Your task to perform on an android device: View the shopping cart on walmart.com. Add "usb-c to usb-a" to the cart on walmart.com, then select checkout. Image 0: 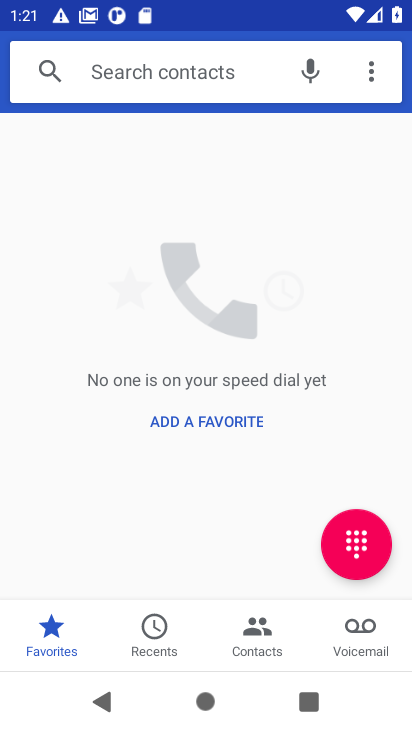
Step 0: press home button
Your task to perform on an android device: View the shopping cart on walmart.com. Add "usb-c to usb-a" to the cart on walmart.com, then select checkout. Image 1: 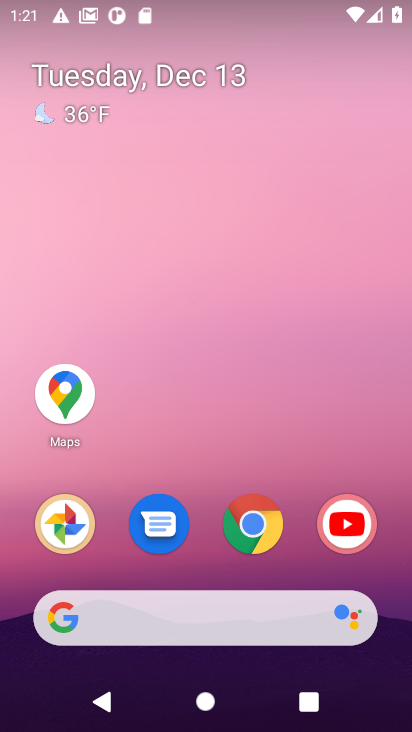
Step 1: click (257, 527)
Your task to perform on an android device: View the shopping cart on walmart.com. Add "usb-c to usb-a" to the cart on walmart.com, then select checkout. Image 2: 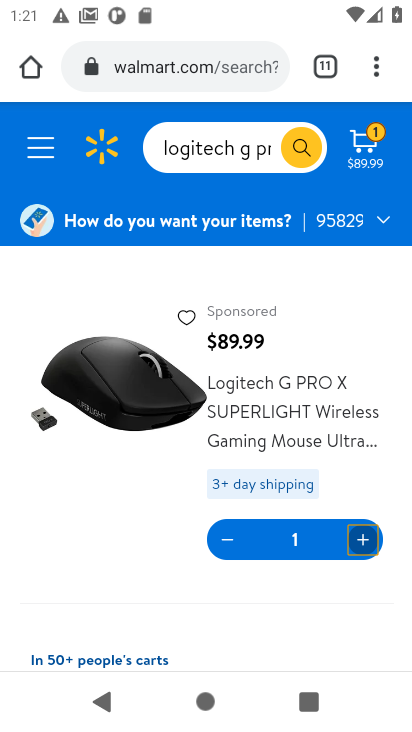
Step 2: click (365, 152)
Your task to perform on an android device: View the shopping cart on walmart.com. Add "usb-c to usb-a" to the cart on walmart.com, then select checkout. Image 3: 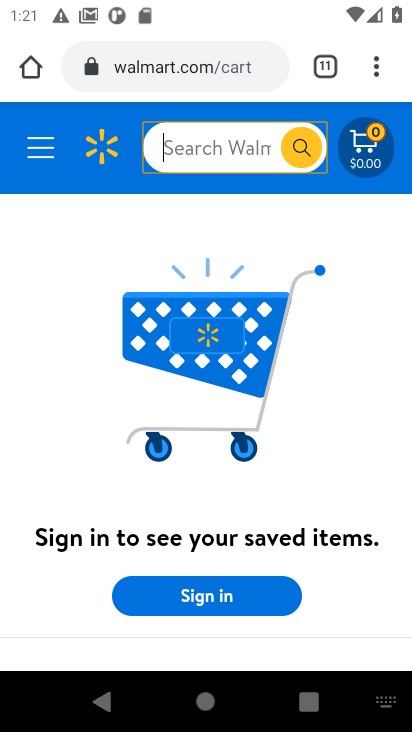
Step 3: click (185, 148)
Your task to perform on an android device: View the shopping cart on walmart.com. Add "usb-c to usb-a" to the cart on walmart.com, then select checkout. Image 4: 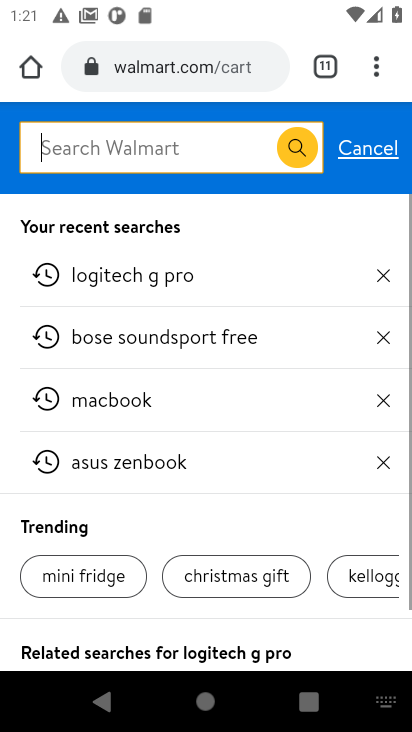
Step 4: type "usb-c to usb-a"
Your task to perform on an android device: View the shopping cart on walmart.com. Add "usb-c to usb-a" to the cart on walmart.com, then select checkout. Image 5: 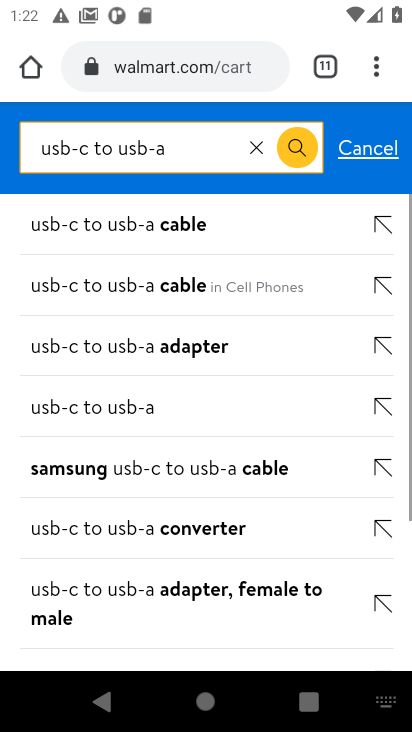
Step 5: click (120, 230)
Your task to perform on an android device: View the shopping cart on walmart.com. Add "usb-c to usb-a" to the cart on walmart.com, then select checkout. Image 6: 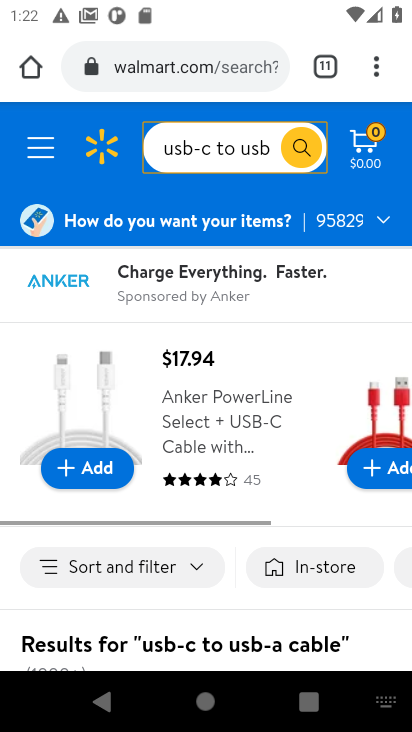
Step 6: drag from (164, 435) to (135, 114)
Your task to perform on an android device: View the shopping cart on walmart.com. Add "usb-c to usb-a" to the cart on walmart.com, then select checkout. Image 7: 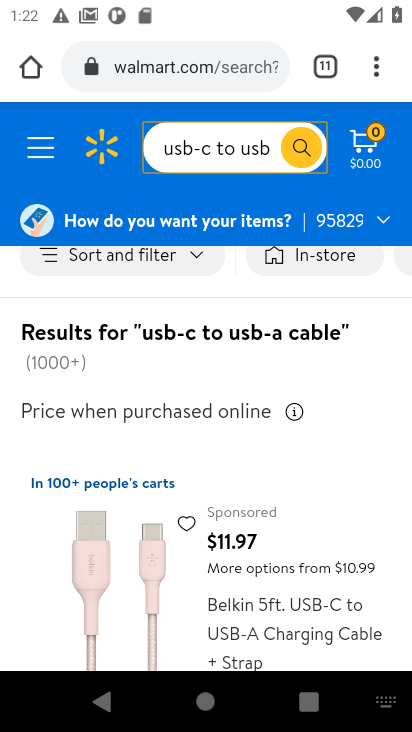
Step 7: drag from (236, 446) to (218, 271)
Your task to perform on an android device: View the shopping cart on walmart.com. Add "usb-c to usb-a" to the cart on walmart.com, then select checkout. Image 8: 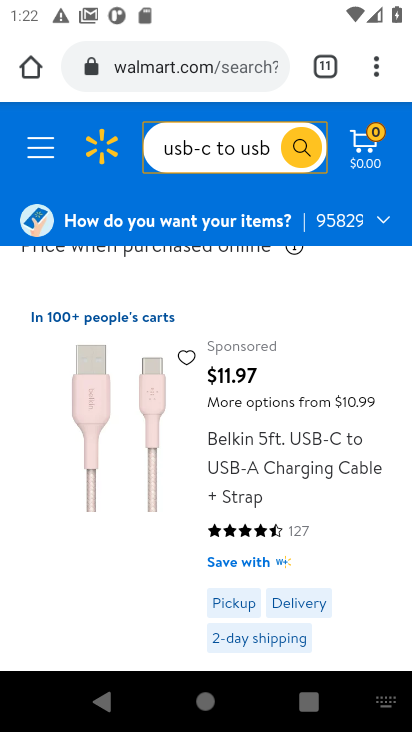
Step 8: drag from (218, 435) to (208, 235)
Your task to perform on an android device: View the shopping cart on walmart.com. Add "usb-c to usb-a" to the cart on walmart.com, then select checkout. Image 9: 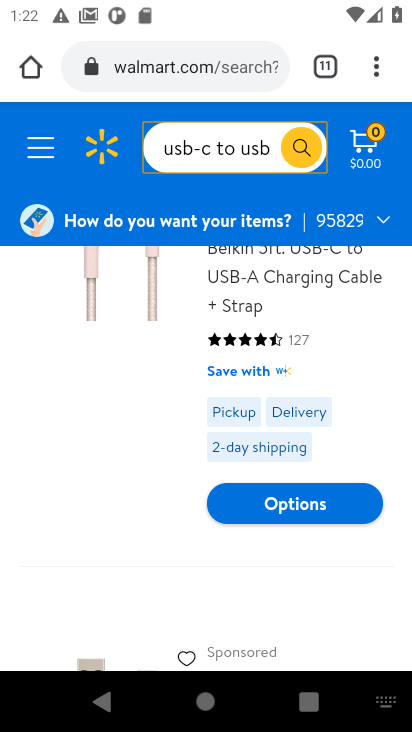
Step 9: click (267, 277)
Your task to perform on an android device: View the shopping cart on walmart.com. Add "usb-c to usb-a" to the cart on walmart.com, then select checkout. Image 10: 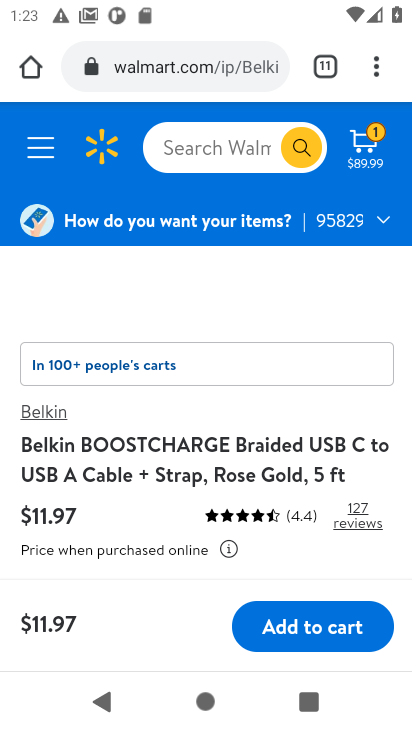
Step 10: click (331, 623)
Your task to perform on an android device: View the shopping cart on walmart.com. Add "usb-c to usb-a" to the cart on walmart.com, then select checkout. Image 11: 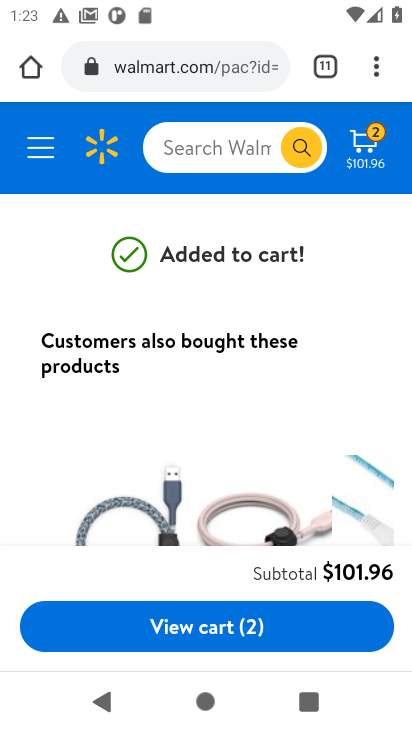
Step 11: click (195, 631)
Your task to perform on an android device: View the shopping cart on walmart.com. Add "usb-c to usb-a" to the cart on walmart.com, then select checkout. Image 12: 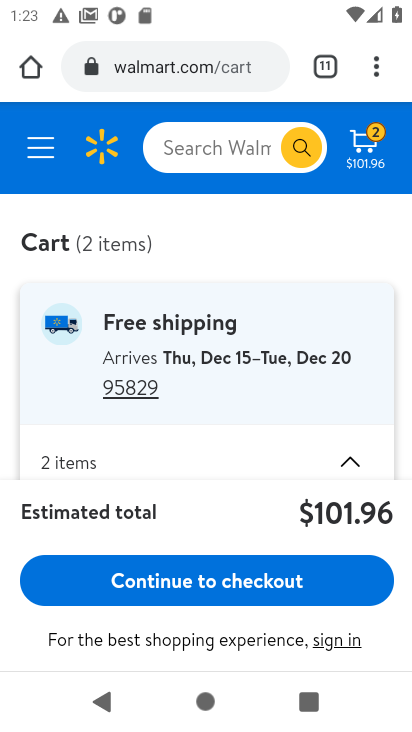
Step 12: click (202, 585)
Your task to perform on an android device: View the shopping cart on walmart.com. Add "usb-c to usb-a" to the cart on walmart.com, then select checkout. Image 13: 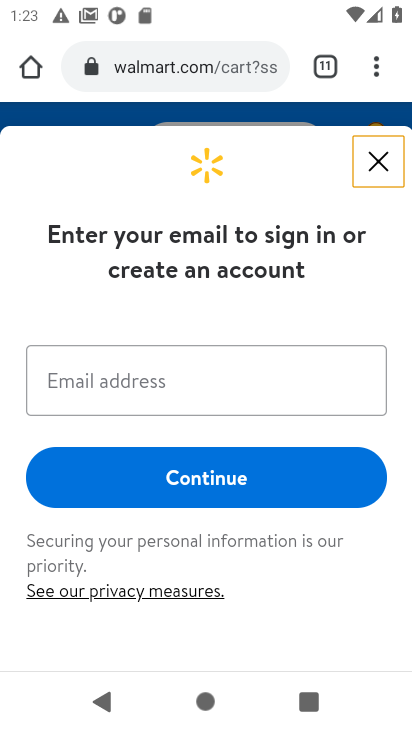
Step 13: task complete